Your task to perform on an android device: toggle pop-ups in chrome Image 0: 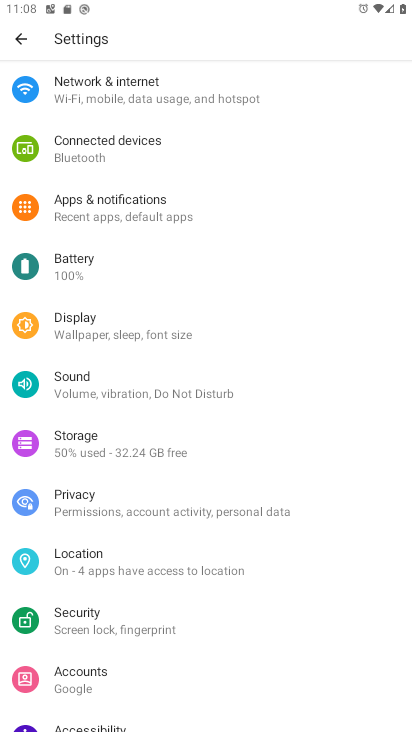
Step 0: task complete